Your task to perform on an android device: What's on my calendar tomorrow? Image 0: 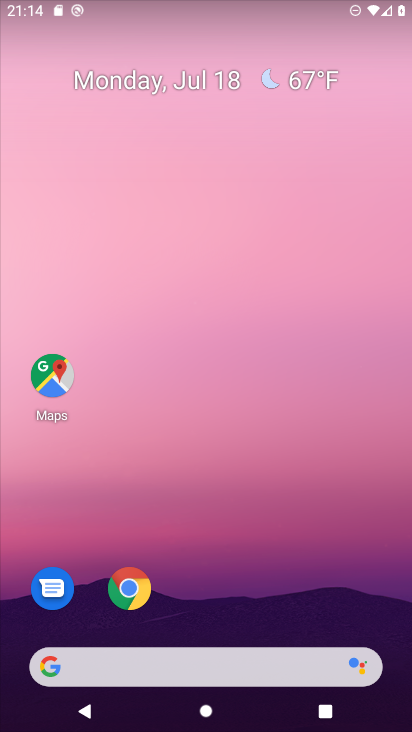
Step 0: drag from (377, 611) to (317, 189)
Your task to perform on an android device: What's on my calendar tomorrow? Image 1: 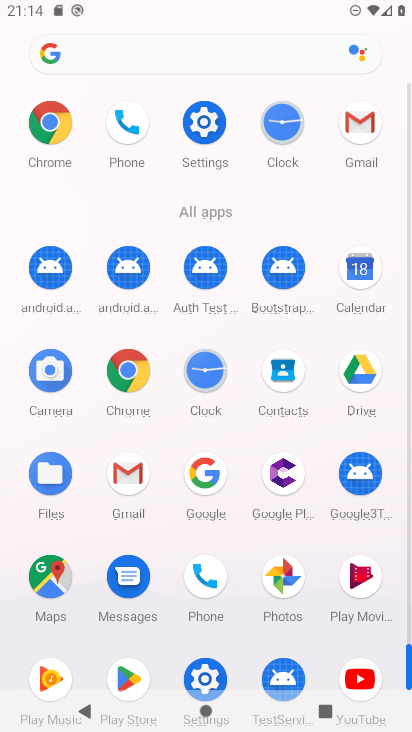
Step 1: click (364, 267)
Your task to perform on an android device: What's on my calendar tomorrow? Image 2: 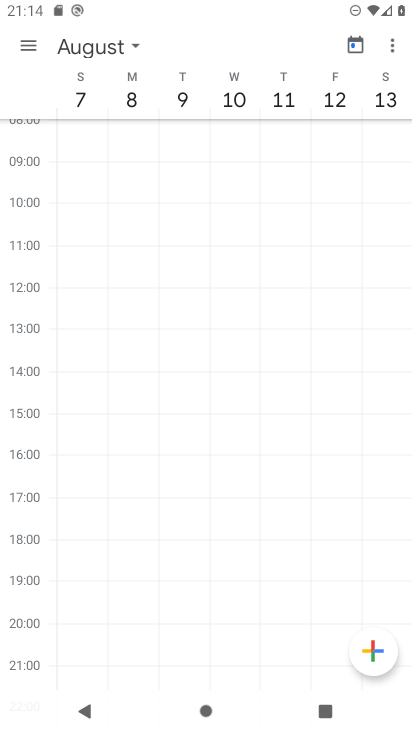
Step 2: click (25, 46)
Your task to perform on an android device: What's on my calendar tomorrow? Image 3: 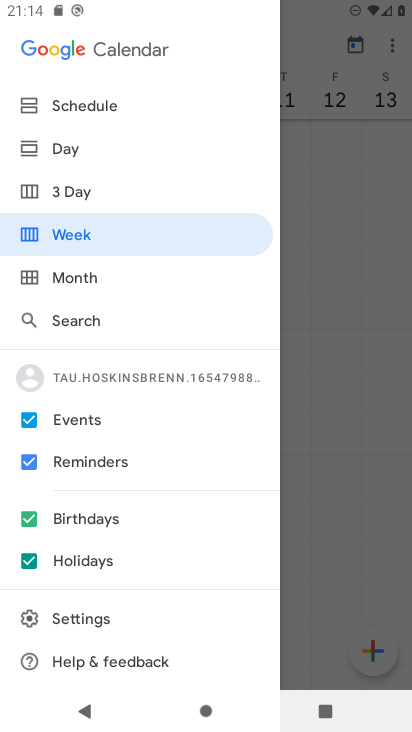
Step 3: click (62, 151)
Your task to perform on an android device: What's on my calendar tomorrow? Image 4: 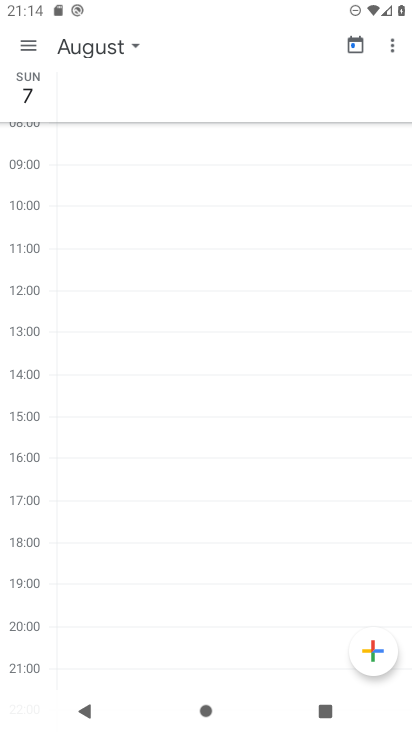
Step 4: click (119, 44)
Your task to perform on an android device: What's on my calendar tomorrow? Image 5: 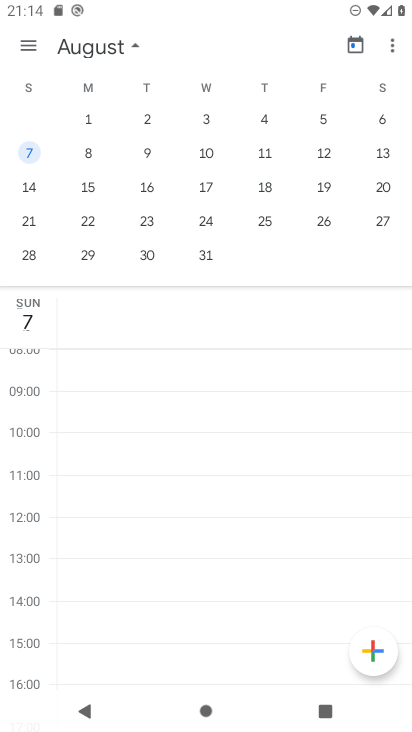
Step 5: drag from (26, 188) to (390, 167)
Your task to perform on an android device: What's on my calendar tomorrow? Image 6: 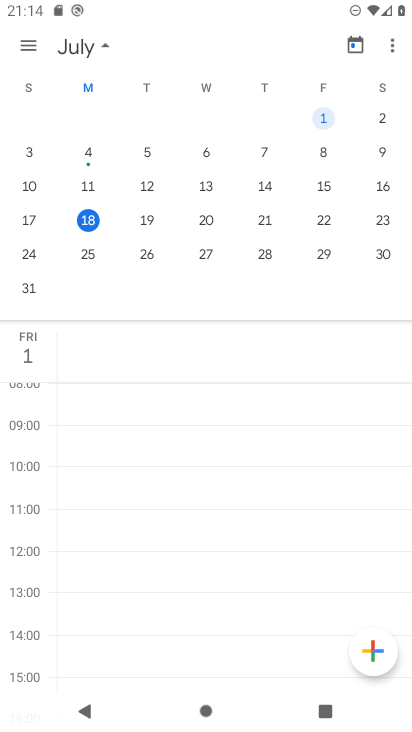
Step 6: click (141, 223)
Your task to perform on an android device: What's on my calendar tomorrow? Image 7: 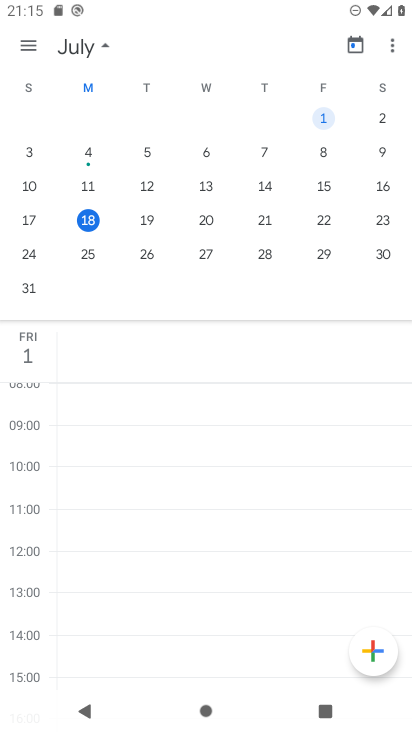
Step 7: drag from (170, 467) to (176, 676)
Your task to perform on an android device: What's on my calendar tomorrow? Image 8: 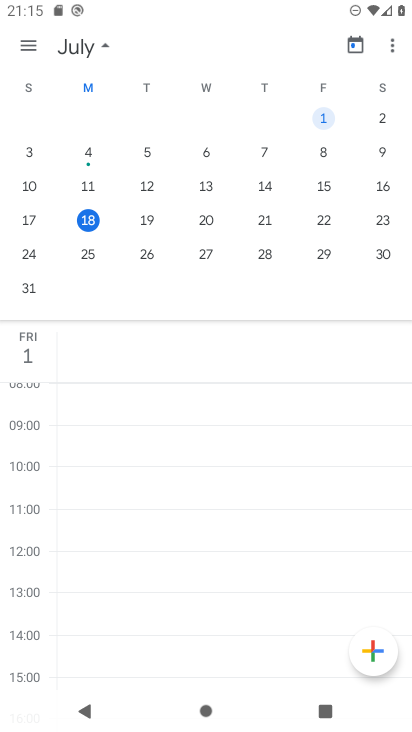
Step 8: click (150, 218)
Your task to perform on an android device: What's on my calendar tomorrow? Image 9: 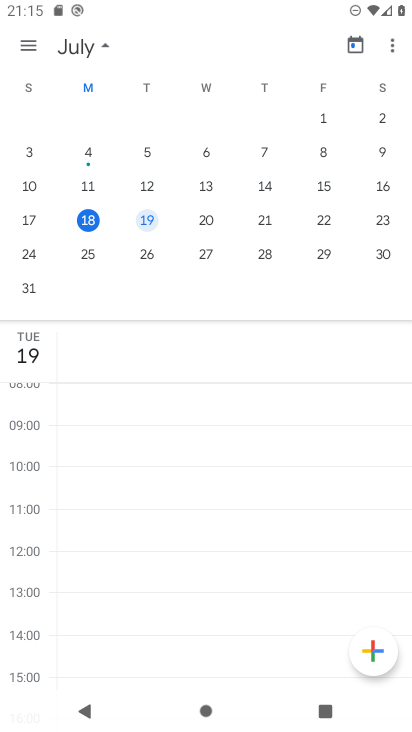
Step 9: task complete